Your task to perform on an android device: Open Google Chrome and open the bookmarks view Image 0: 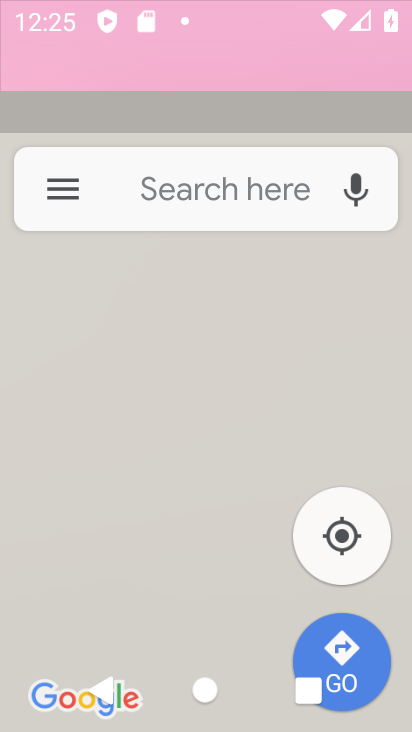
Step 0: click (334, 113)
Your task to perform on an android device: Open Google Chrome and open the bookmarks view Image 1: 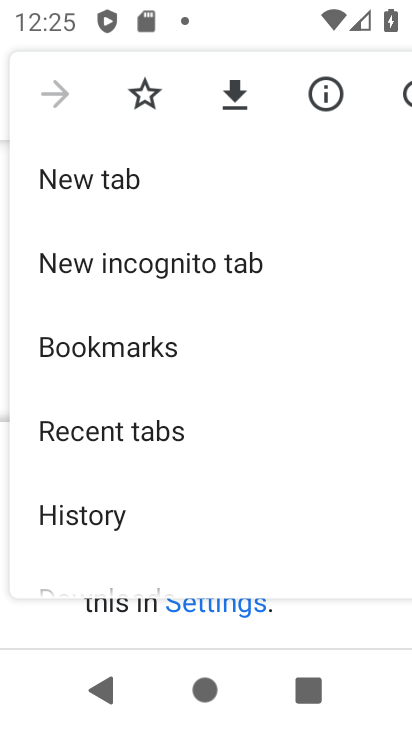
Step 1: click (116, 351)
Your task to perform on an android device: Open Google Chrome and open the bookmarks view Image 2: 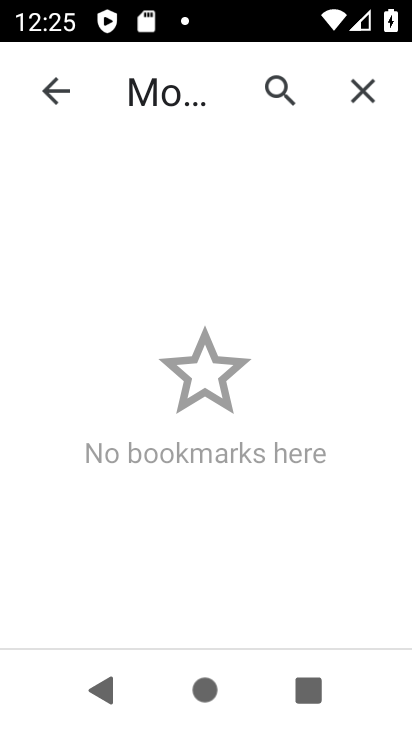
Step 2: task complete